Your task to perform on an android device: all mails in gmail Image 0: 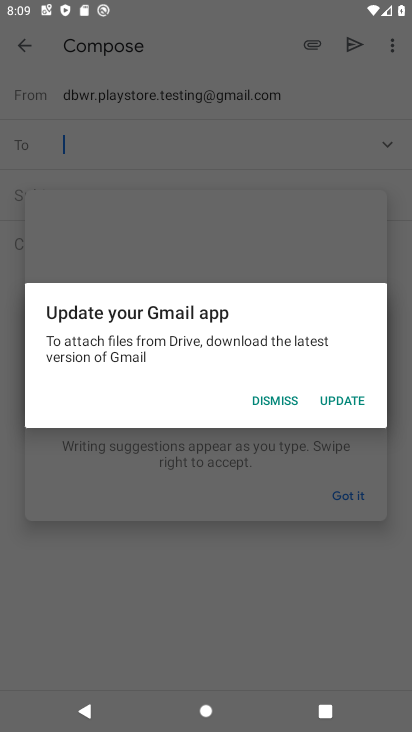
Step 0: press home button
Your task to perform on an android device: all mails in gmail Image 1: 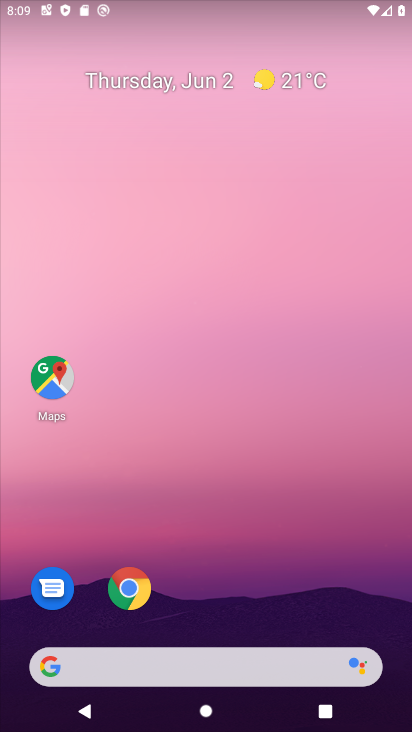
Step 1: drag from (219, 601) to (232, 270)
Your task to perform on an android device: all mails in gmail Image 2: 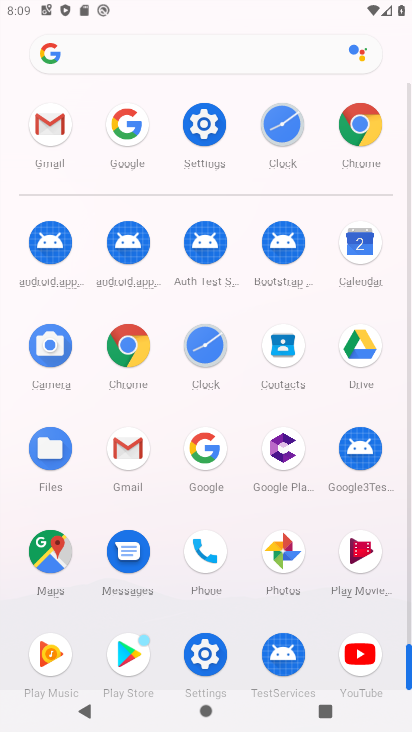
Step 2: click (50, 134)
Your task to perform on an android device: all mails in gmail Image 3: 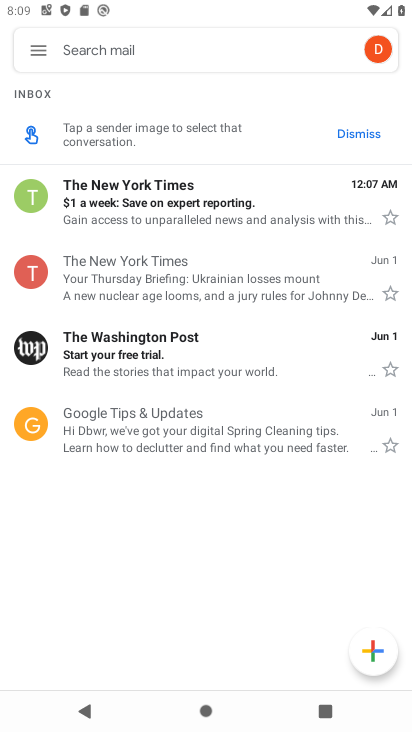
Step 3: click (36, 43)
Your task to perform on an android device: all mails in gmail Image 4: 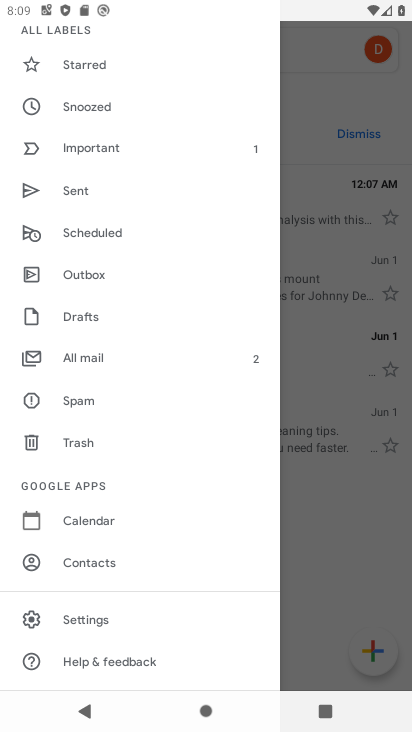
Step 4: click (124, 353)
Your task to perform on an android device: all mails in gmail Image 5: 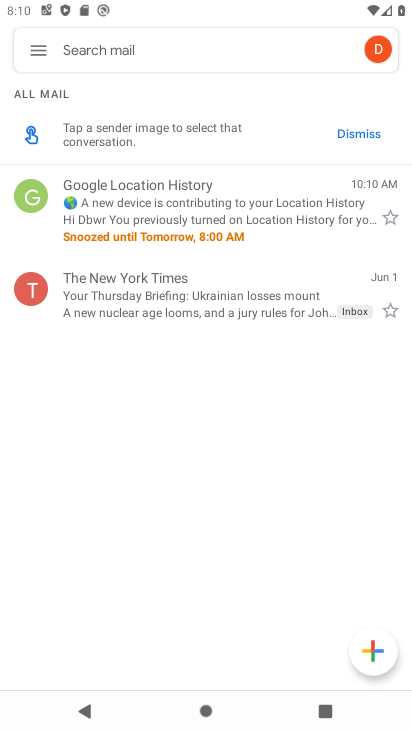
Step 5: task complete